Your task to perform on an android device: turn notification dots on Image 0: 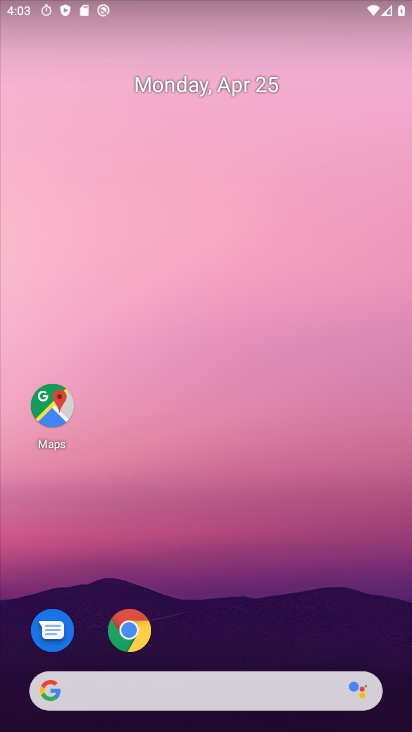
Step 0: drag from (346, 256) to (320, 123)
Your task to perform on an android device: turn notification dots on Image 1: 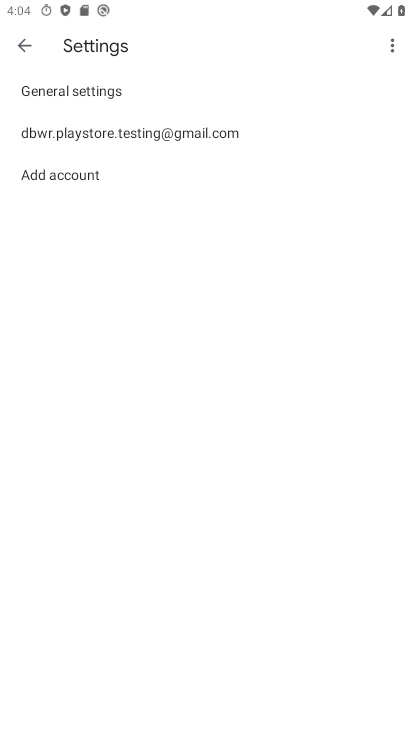
Step 1: press home button
Your task to perform on an android device: turn notification dots on Image 2: 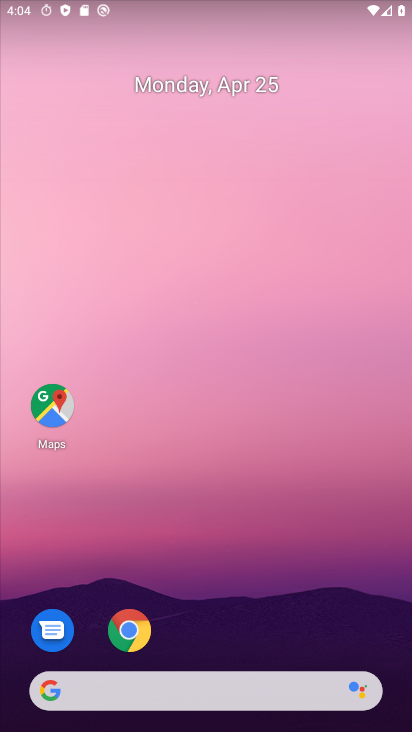
Step 2: drag from (297, 532) to (286, 163)
Your task to perform on an android device: turn notification dots on Image 3: 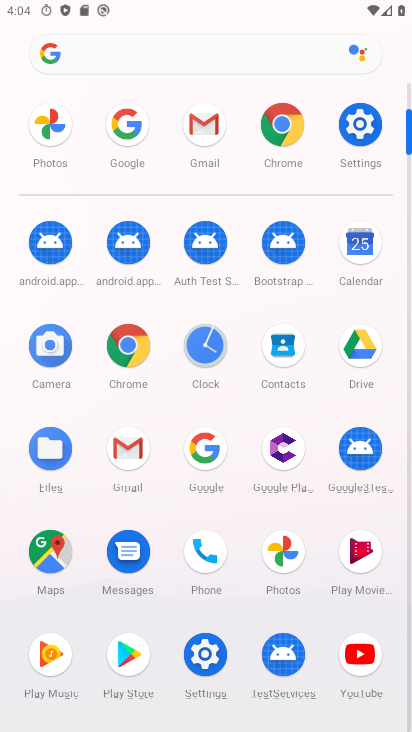
Step 3: click (367, 129)
Your task to perform on an android device: turn notification dots on Image 4: 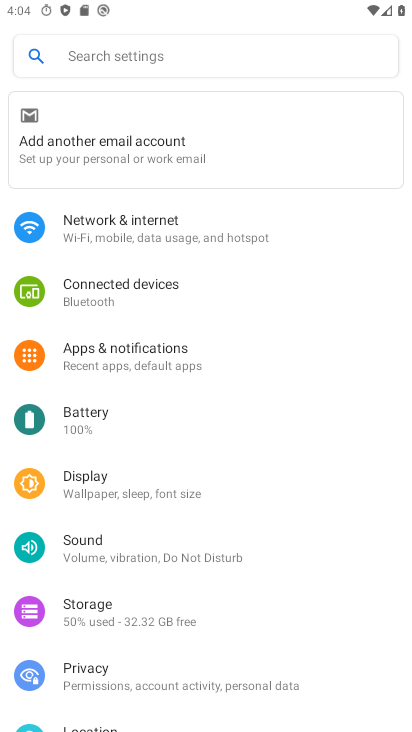
Step 4: drag from (128, 633) to (190, 327)
Your task to perform on an android device: turn notification dots on Image 5: 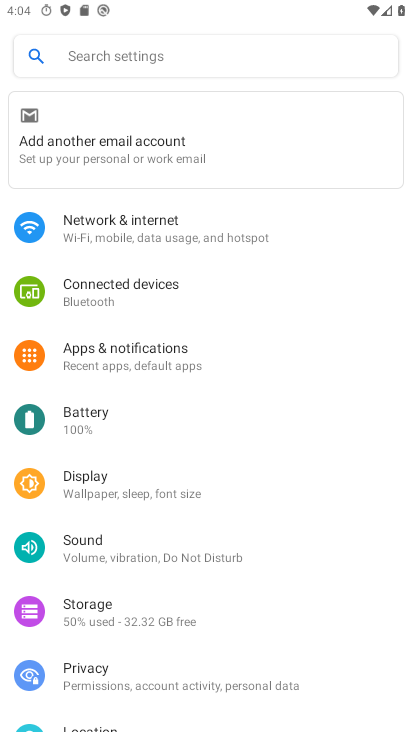
Step 5: click (168, 358)
Your task to perform on an android device: turn notification dots on Image 6: 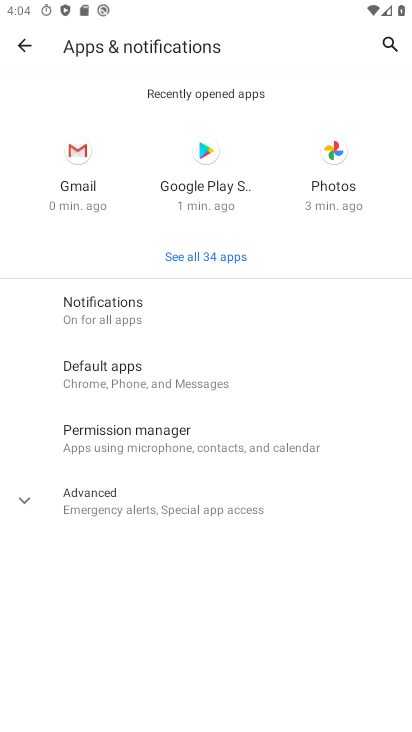
Step 6: click (95, 327)
Your task to perform on an android device: turn notification dots on Image 7: 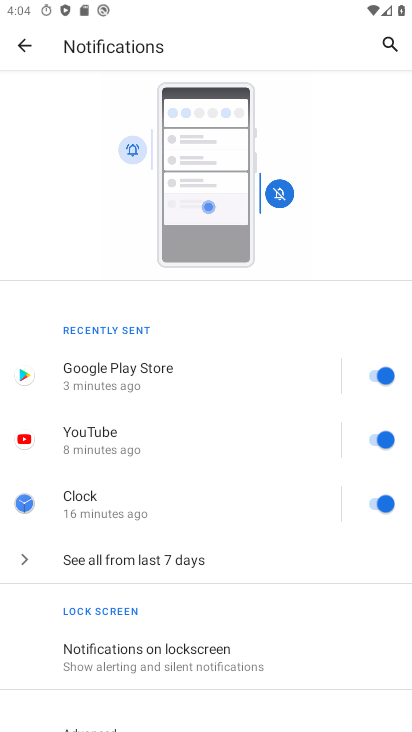
Step 7: drag from (246, 341) to (253, 174)
Your task to perform on an android device: turn notification dots on Image 8: 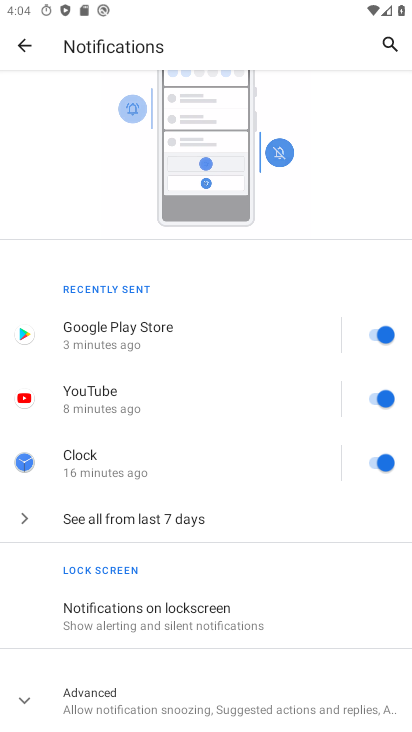
Step 8: drag from (250, 624) to (286, 249)
Your task to perform on an android device: turn notification dots on Image 9: 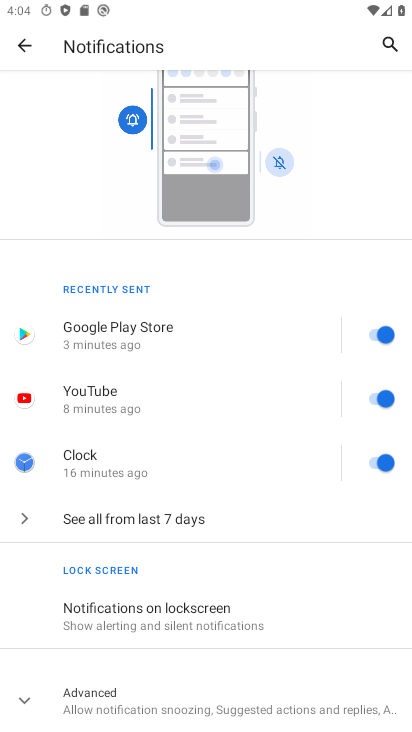
Step 9: click (113, 699)
Your task to perform on an android device: turn notification dots on Image 10: 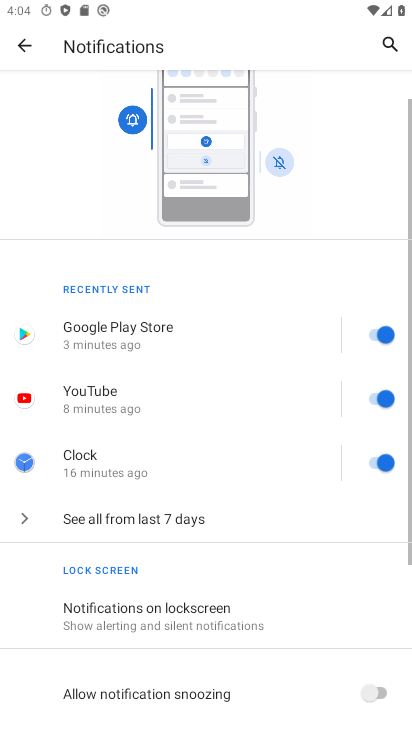
Step 10: drag from (203, 506) to (242, 196)
Your task to perform on an android device: turn notification dots on Image 11: 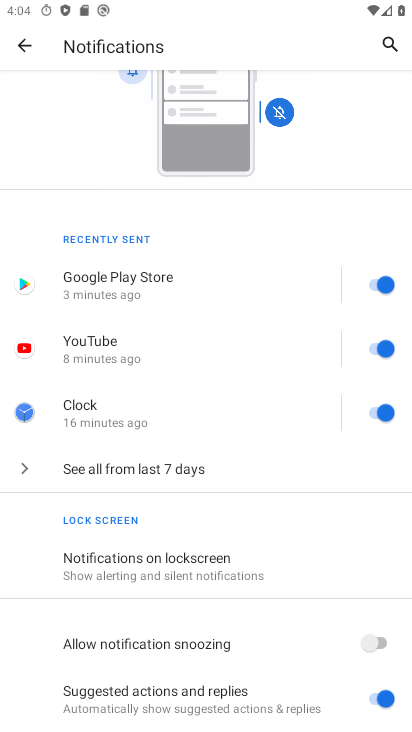
Step 11: drag from (202, 531) to (252, 240)
Your task to perform on an android device: turn notification dots on Image 12: 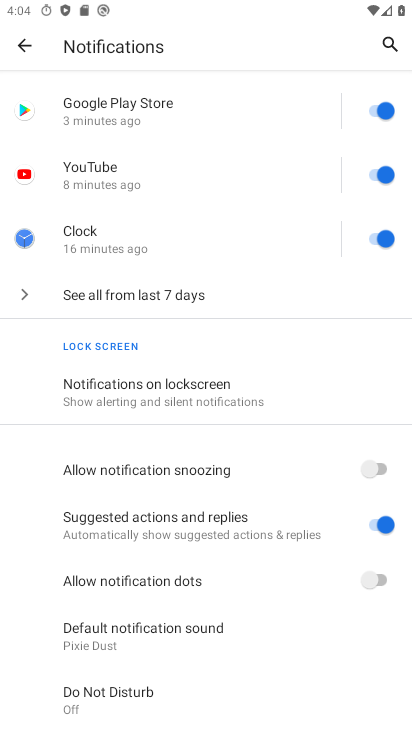
Step 12: click (375, 582)
Your task to perform on an android device: turn notification dots on Image 13: 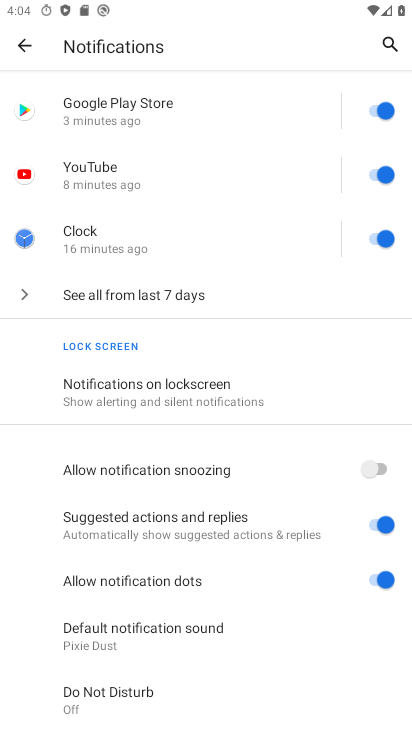
Step 13: task complete